Your task to perform on an android device: Open the map Image 0: 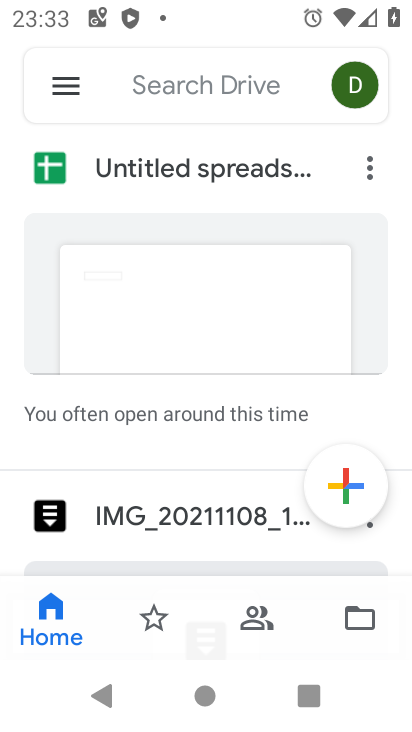
Step 0: press home button
Your task to perform on an android device: Open the map Image 1: 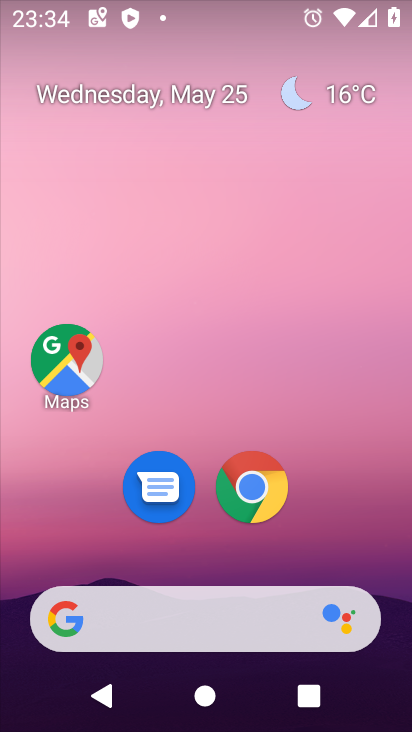
Step 1: click (55, 357)
Your task to perform on an android device: Open the map Image 2: 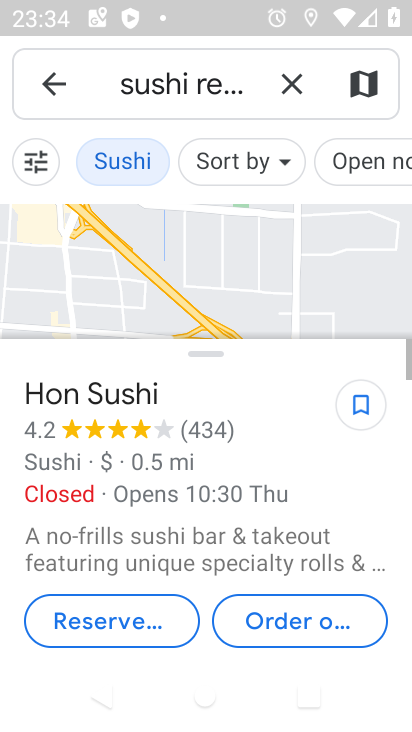
Step 2: task complete